Your task to perform on an android device: Open the calendar and show me this week's events Image 0: 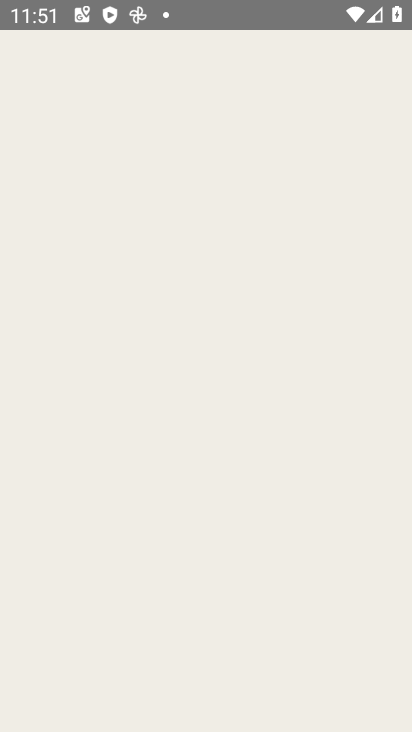
Step 0: press home button
Your task to perform on an android device: Open the calendar and show me this week's events Image 1: 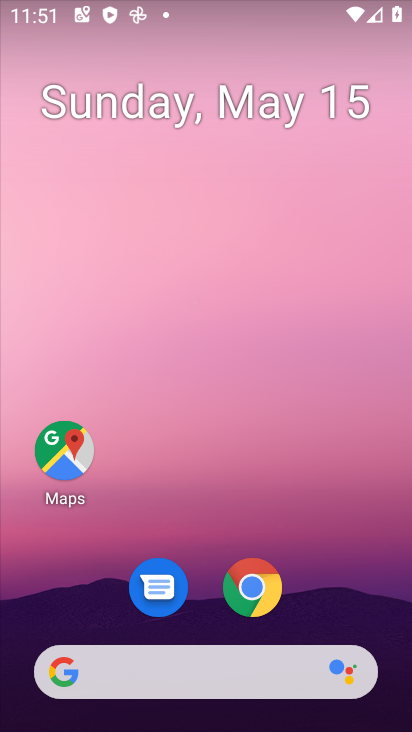
Step 1: drag from (387, 626) to (264, 81)
Your task to perform on an android device: Open the calendar and show me this week's events Image 2: 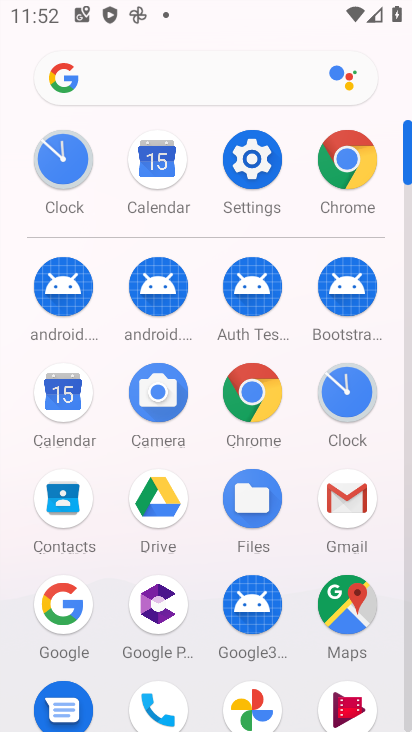
Step 2: click (78, 382)
Your task to perform on an android device: Open the calendar and show me this week's events Image 3: 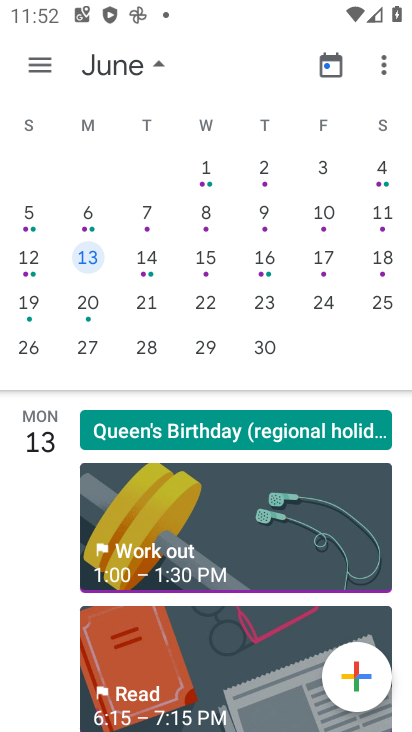
Step 3: task complete